Your task to perform on an android device: move a message to another label in the gmail app Image 0: 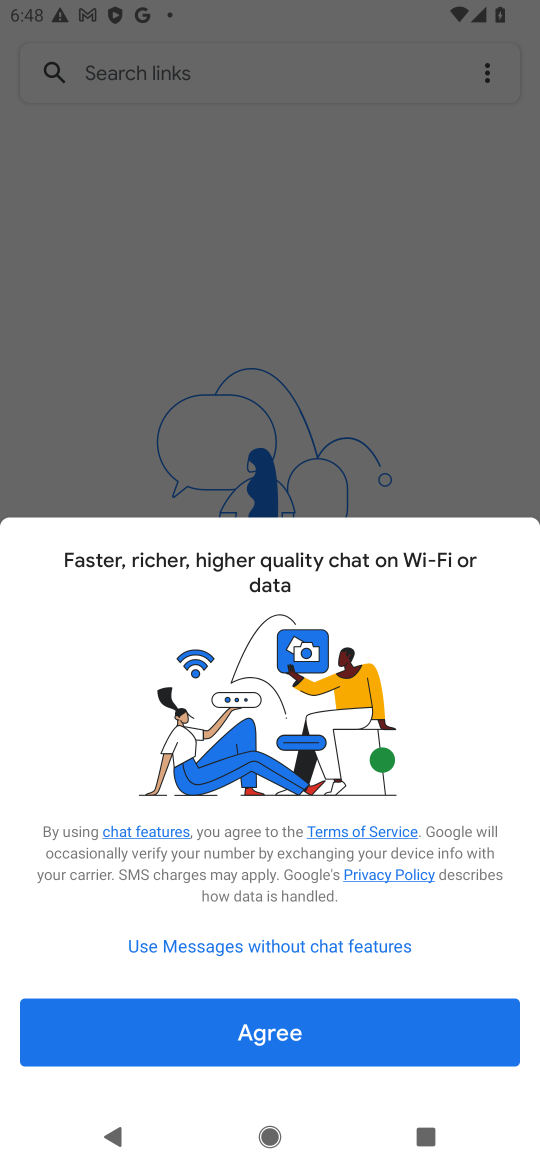
Step 0: press home button
Your task to perform on an android device: move a message to another label in the gmail app Image 1: 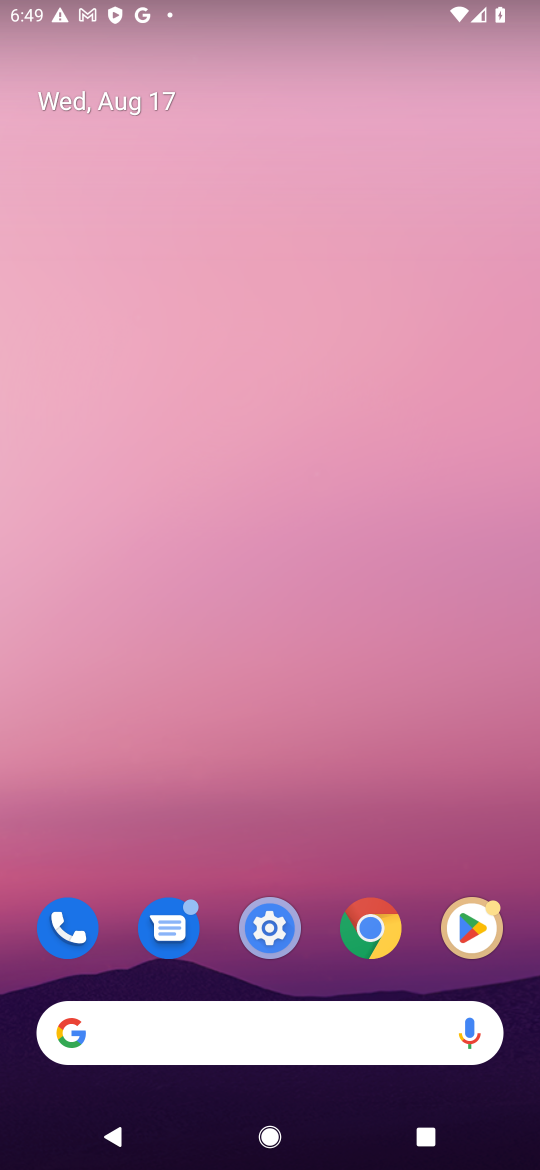
Step 1: drag from (269, 958) to (95, 1)
Your task to perform on an android device: move a message to another label in the gmail app Image 2: 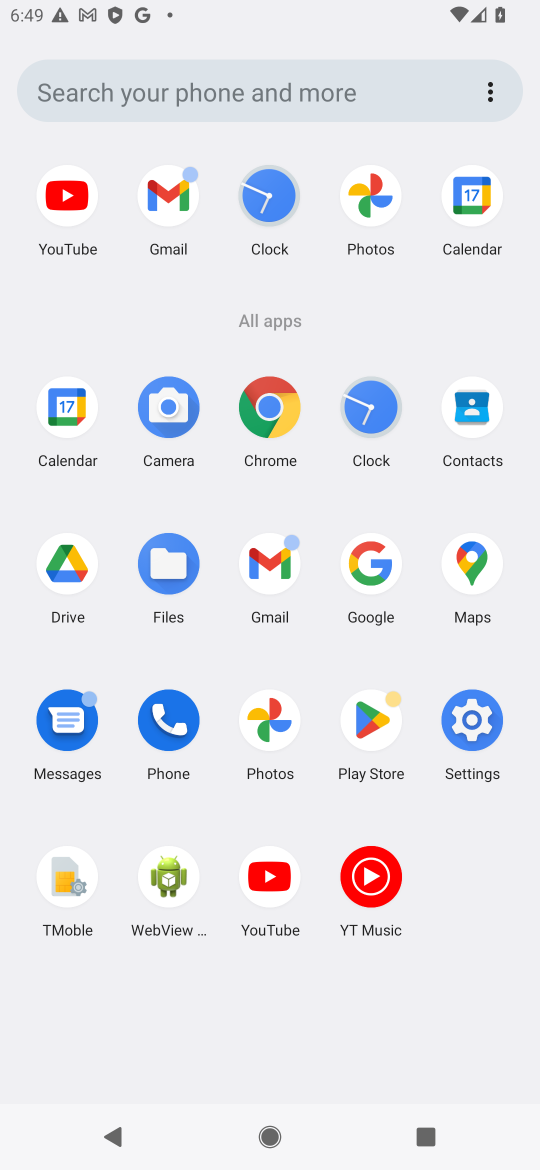
Step 2: click (272, 579)
Your task to perform on an android device: move a message to another label in the gmail app Image 3: 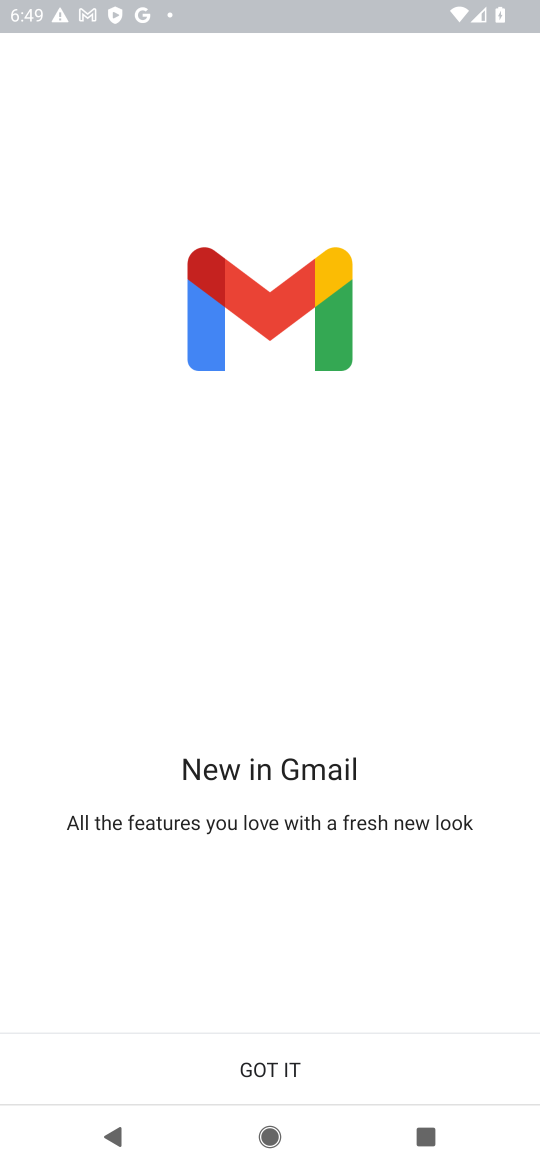
Step 3: click (283, 1079)
Your task to perform on an android device: move a message to another label in the gmail app Image 4: 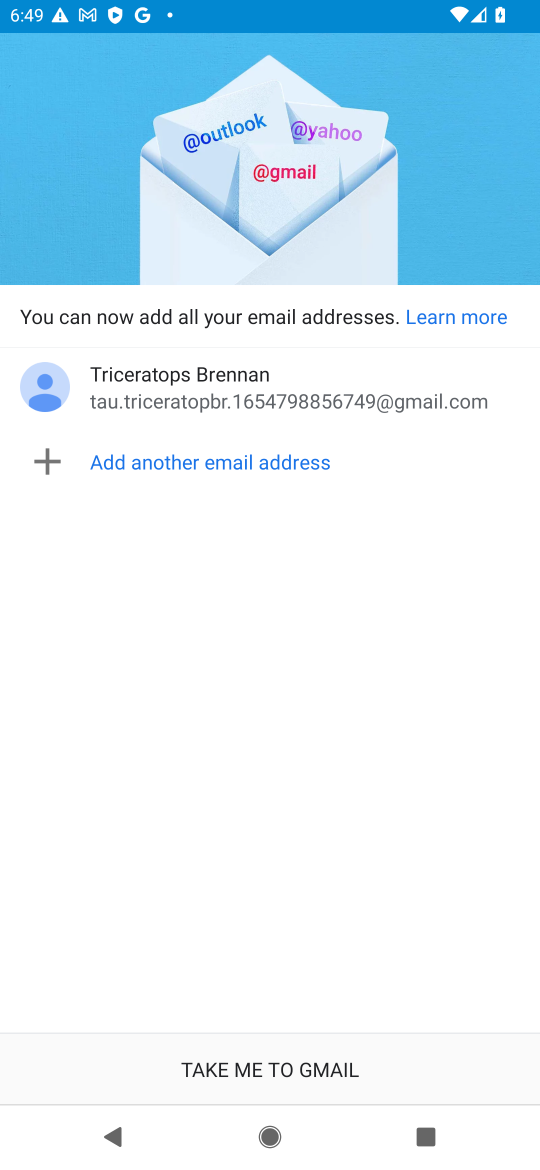
Step 4: click (283, 1079)
Your task to perform on an android device: move a message to another label in the gmail app Image 5: 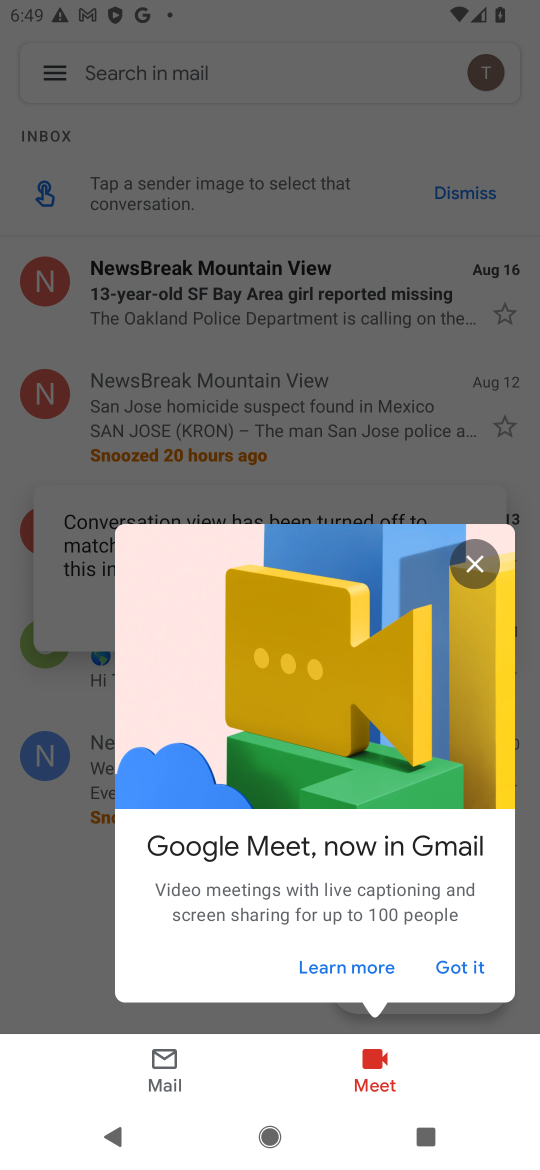
Step 5: click (475, 972)
Your task to perform on an android device: move a message to another label in the gmail app Image 6: 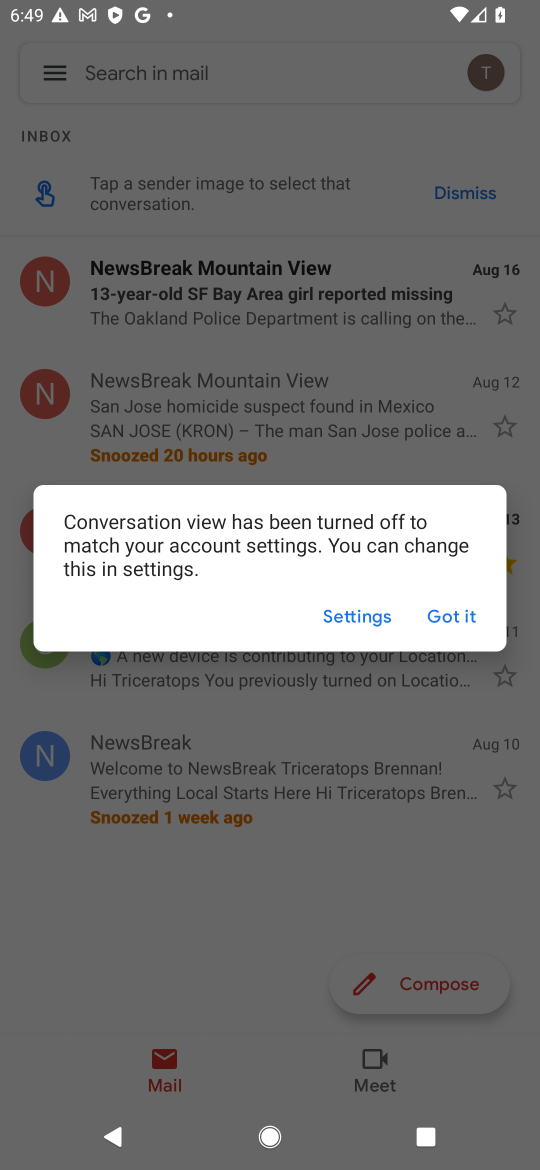
Step 6: click (444, 622)
Your task to perform on an android device: move a message to another label in the gmail app Image 7: 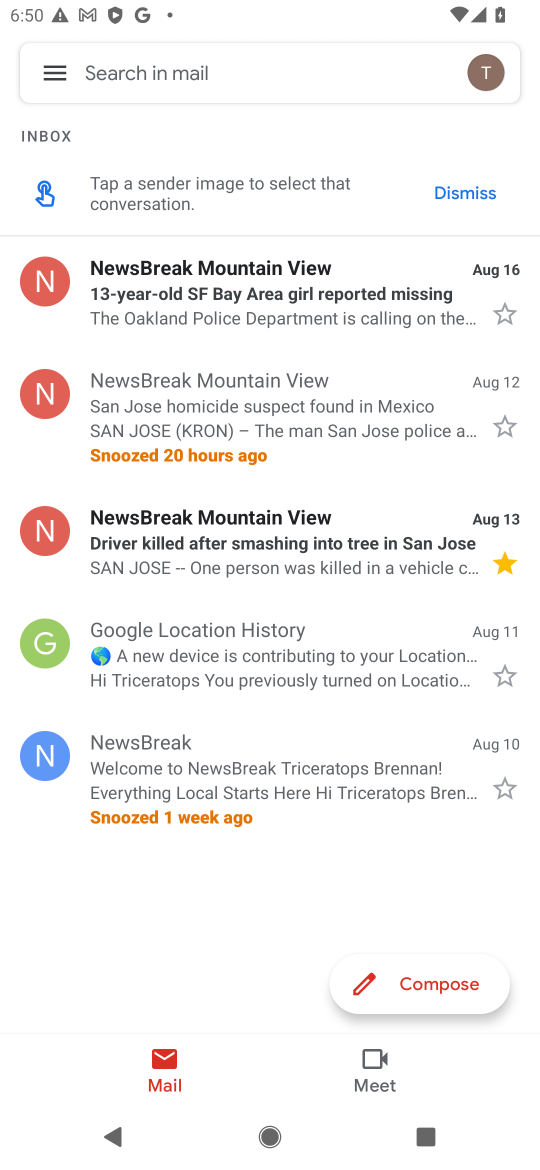
Step 7: click (35, 286)
Your task to perform on an android device: move a message to another label in the gmail app Image 8: 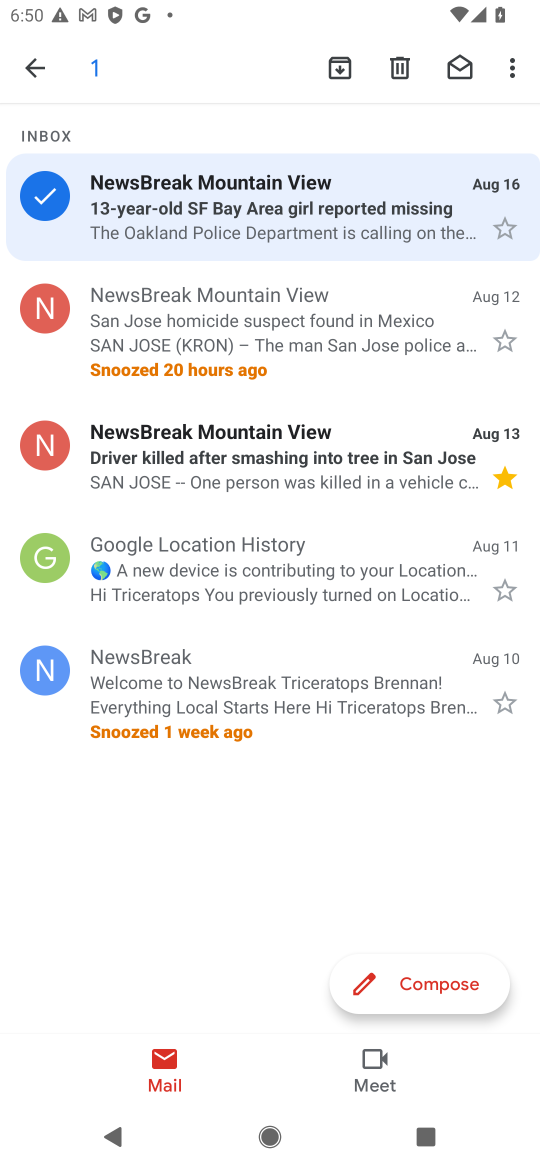
Step 8: click (512, 76)
Your task to perform on an android device: move a message to another label in the gmail app Image 9: 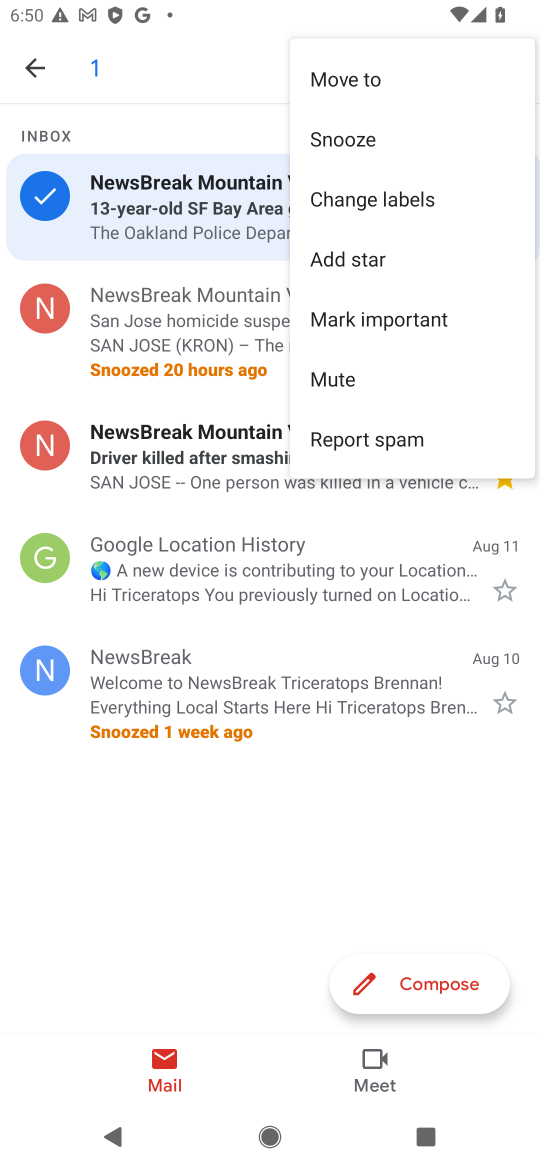
Step 9: click (397, 192)
Your task to perform on an android device: move a message to another label in the gmail app Image 10: 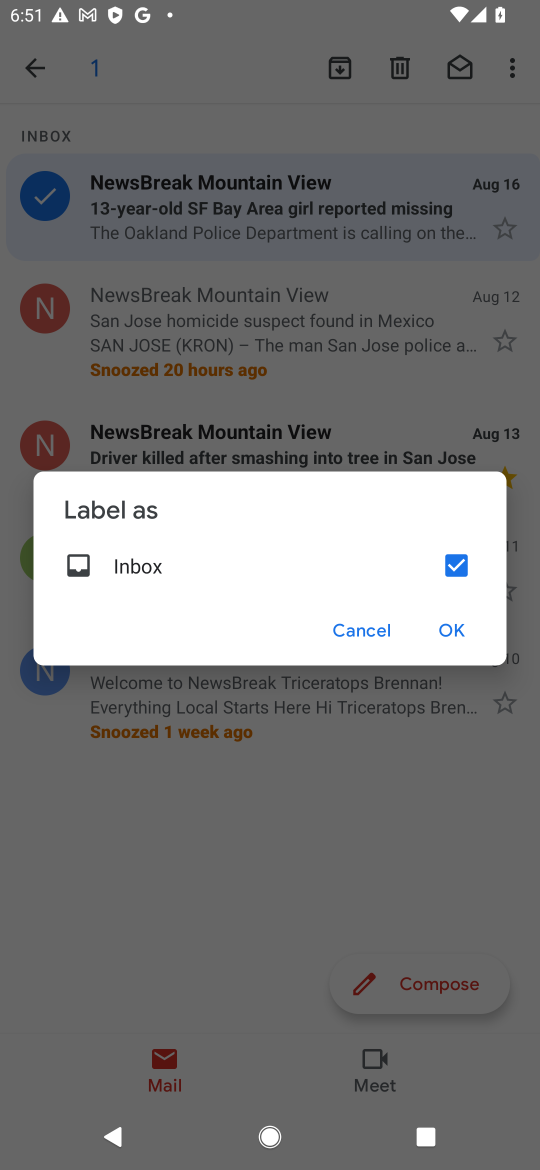
Step 10: click (441, 628)
Your task to perform on an android device: move a message to another label in the gmail app Image 11: 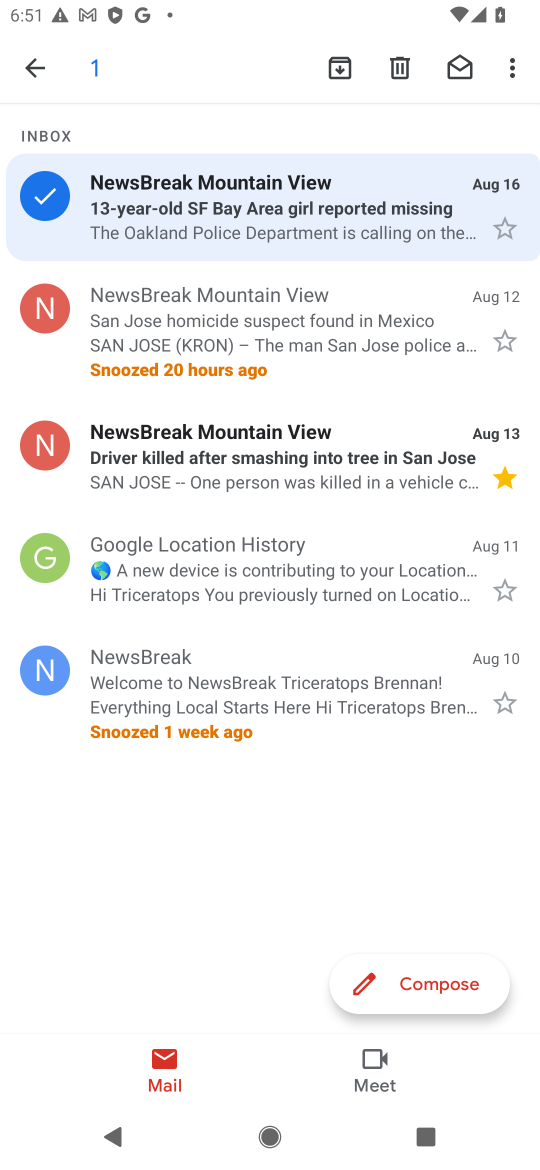
Step 11: task complete